Your task to perform on an android device: open the mobile data screen to see how much data has been used Image 0: 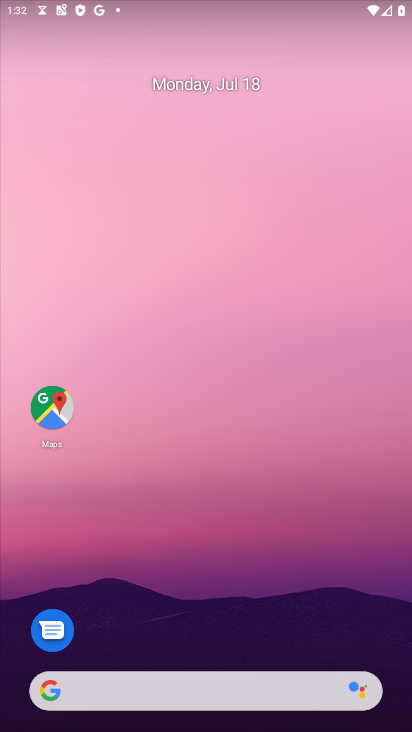
Step 0: drag from (323, 663) to (390, 702)
Your task to perform on an android device: open the mobile data screen to see how much data has been used Image 1: 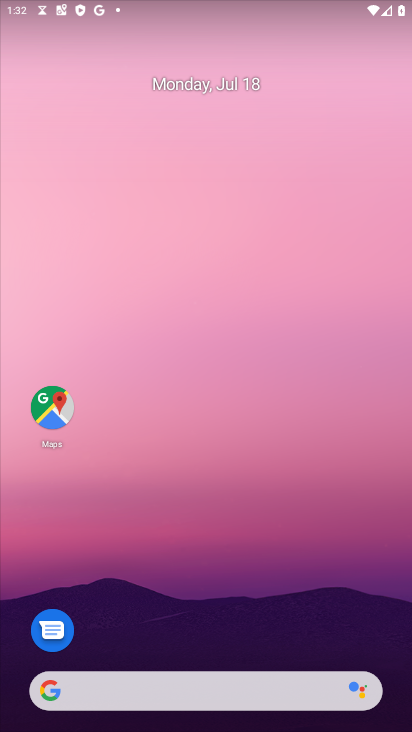
Step 1: drag from (289, 702) to (345, 0)
Your task to perform on an android device: open the mobile data screen to see how much data has been used Image 2: 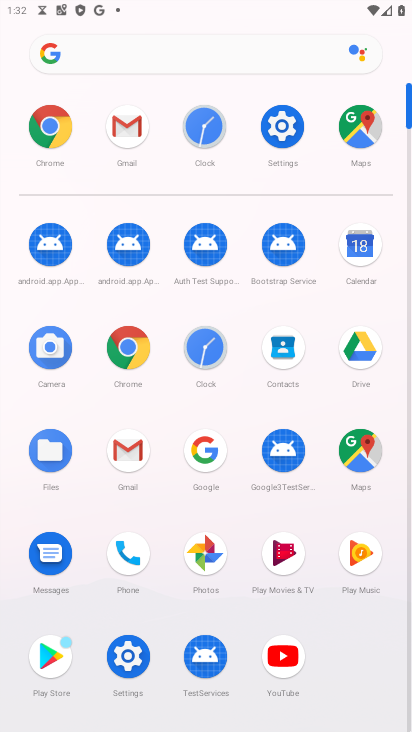
Step 2: click (274, 130)
Your task to perform on an android device: open the mobile data screen to see how much data has been used Image 3: 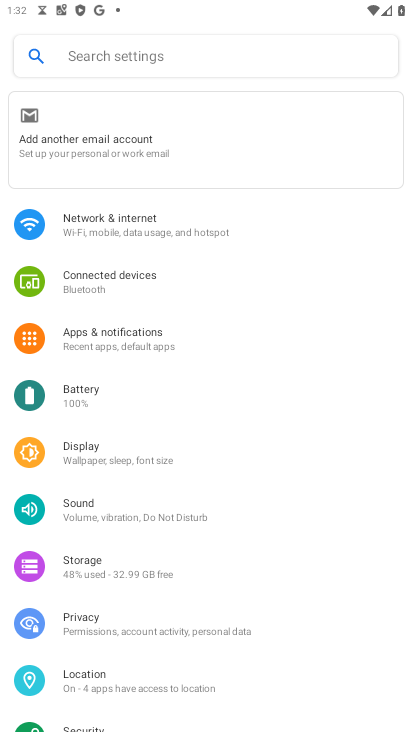
Step 3: click (176, 230)
Your task to perform on an android device: open the mobile data screen to see how much data has been used Image 4: 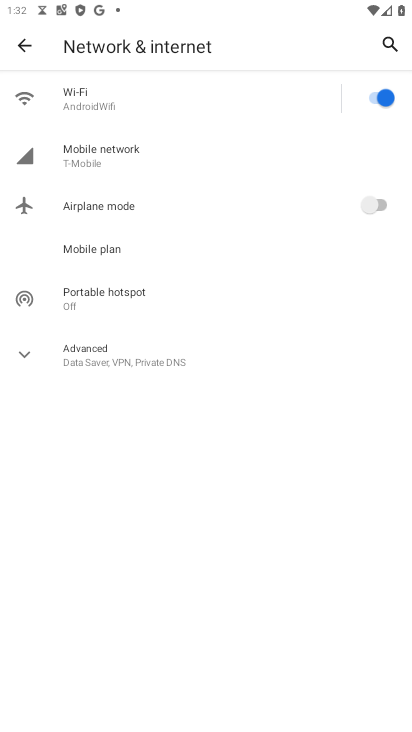
Step 4: click (127, 165)
Your task to perform on an android device: open the mobile data screen to see how much data has been used Image 5: 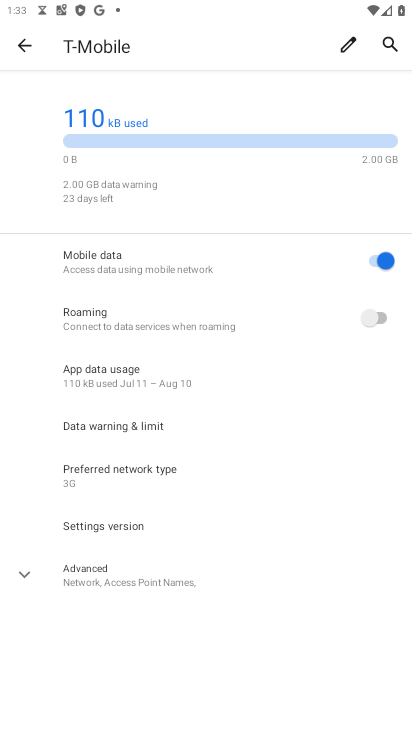
Step 5: task complete